Your task to perform on an android device: check out phone information Image 0: 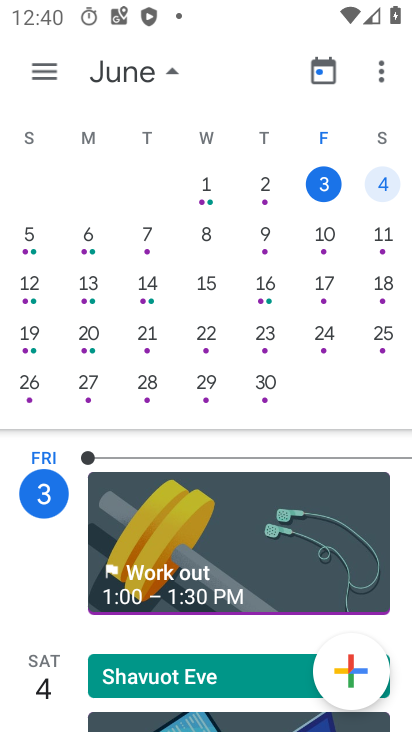
Step 0: press home button
Your task to perform on an android device: check out phone information Image 1: 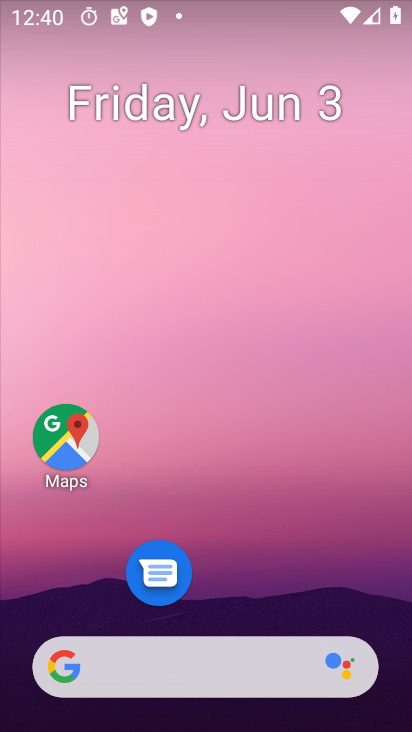
Step 1: drag from (330, 668) to (349, 136)
Your task to perform on an android device: check out phone information Image 2: 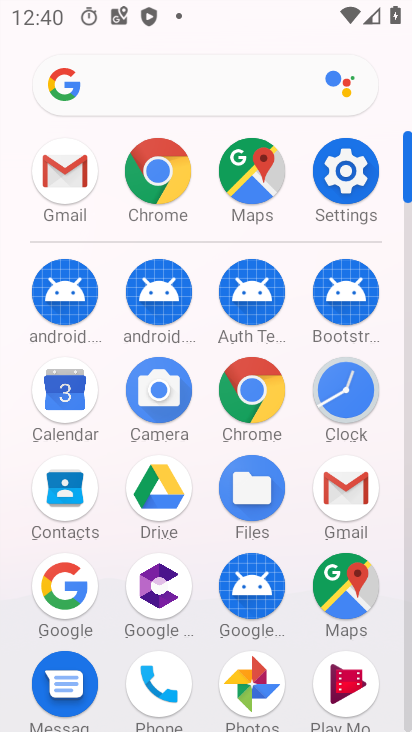
Step 2: click (333, 174)
Your task to perform on an android device: check out phone information Image 3: 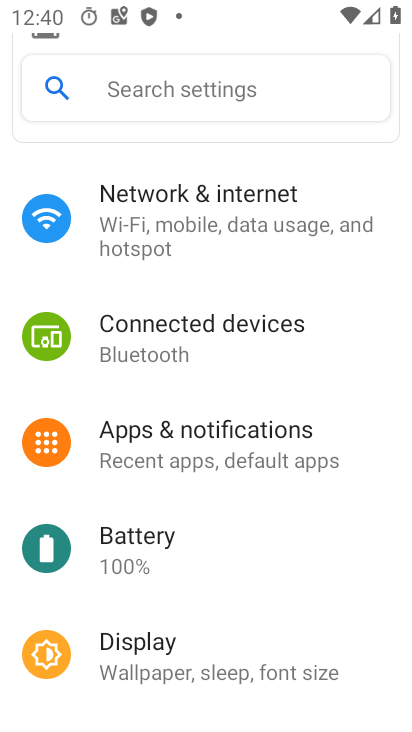
Step 3: drag from (233, 588) to (276, 50)
Your task to perform on an android device: check out phone information Image 4: 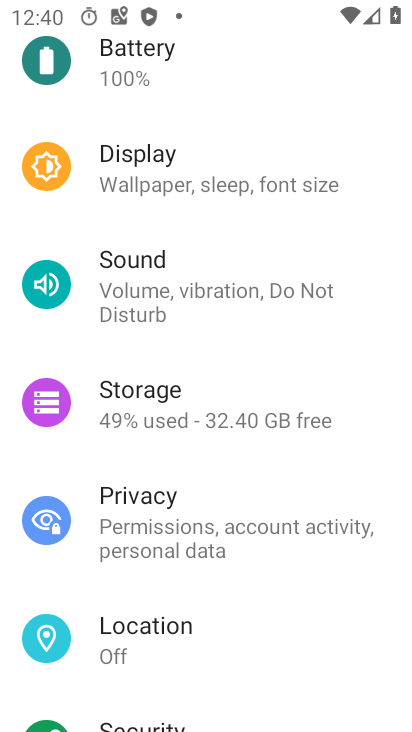
Step 4: drag from (306, 610) to (355, 142)
Your task to perform on an android device: check out phone information Image 5: 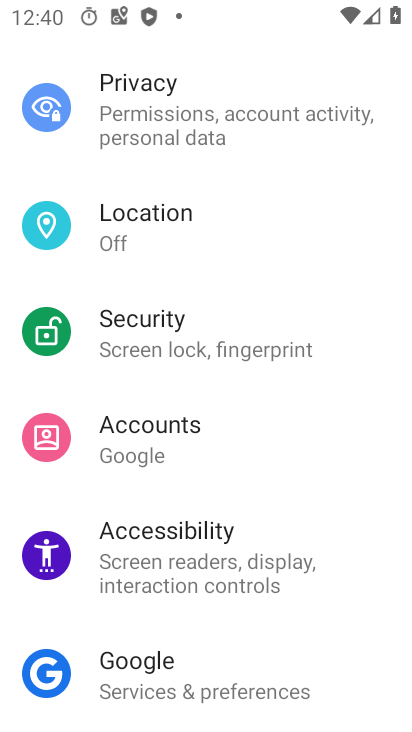
Step 5: drag from (311, 624) to (341, 214)
Your task to perform on an android device: check out phone information Image 6: 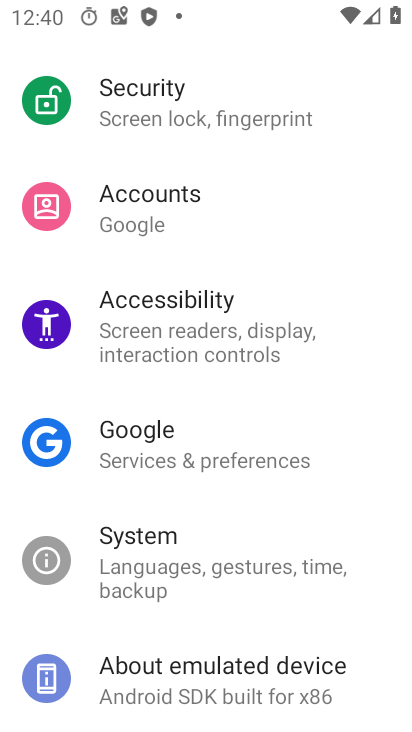
Step 6: click (284, 682)
Your task to perform on an android device: check out phone information Image 7: 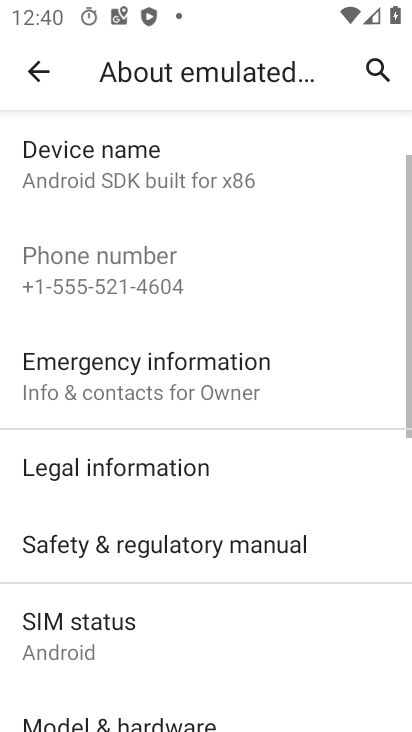
Step 7: task complete